Your task to perform on an android device: remove spam from my inbox in the gmail app Image 0: 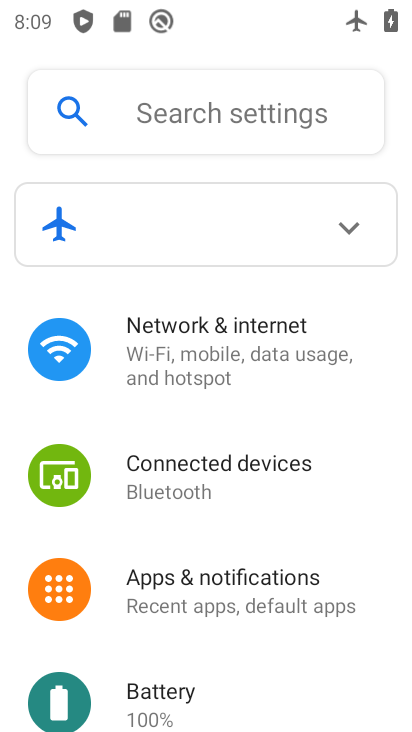
Step 0: press home button
Your task to perform on an android device: remove spam from my inbox in the gmail app Image 1: 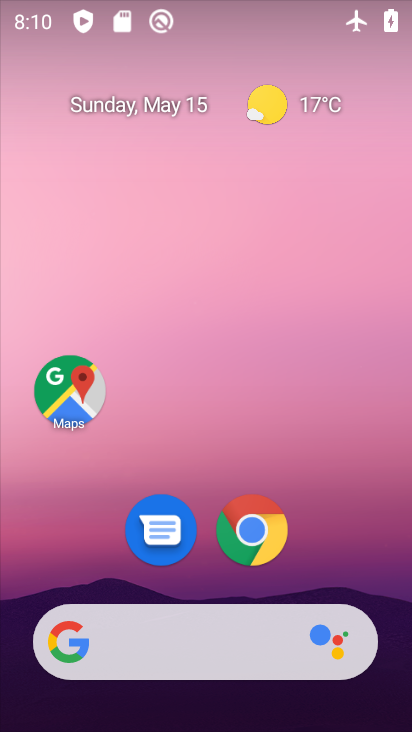
Step 1: drag from (206, 714) to (190, 206)
Your task to perform on an android device: remove spam from my inbox in the gmail app Image 2: 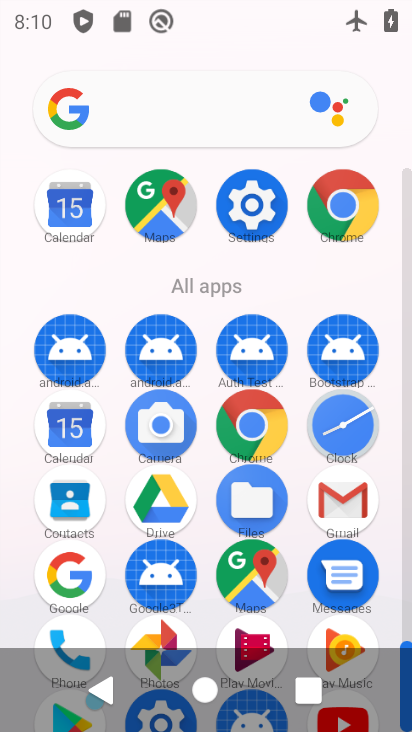
Step 2: click (362, 485)
Your task to perform on an android device: remove spam from my inbox in the gmail app Image 3: 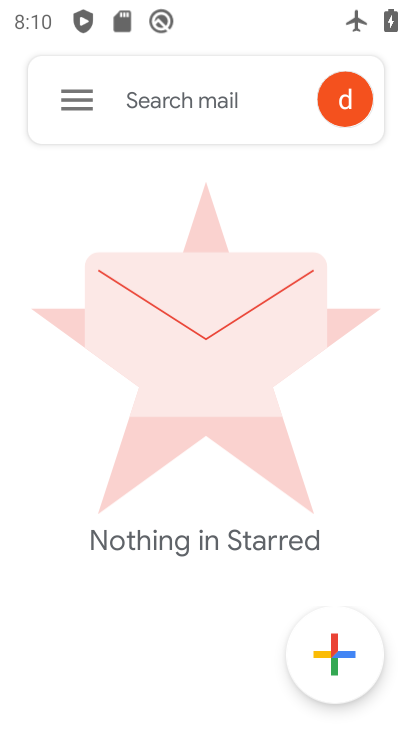
Step 3: click (64, 104)
Your task to perform on an android device: remove spam from my inbox in the gmail app Image 4: 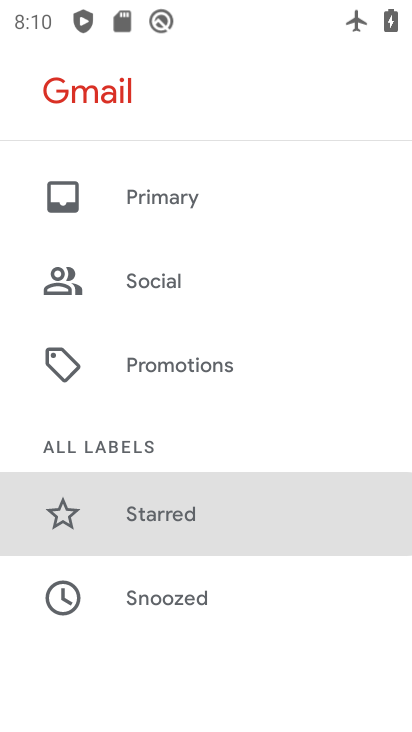
Step 4: drag from (227, 192) to (206, 691)
Your task to perform on an android device: remove spam from my inbox in the gmail app Image 5: 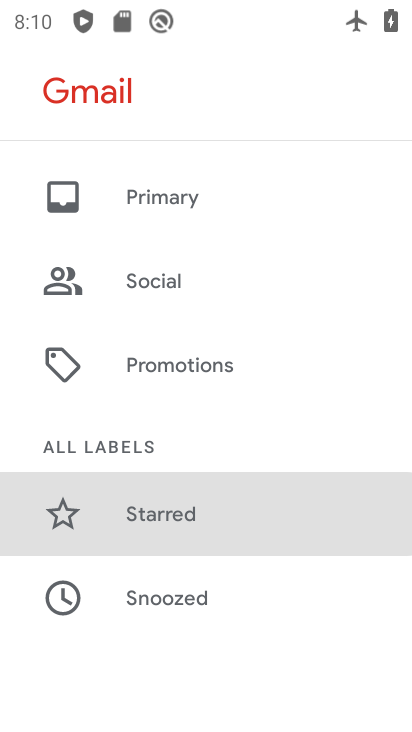
Step 5: click (173, 190)
Your task to perform on an android device: remove spam from my inbox in the gmail app Image 6: 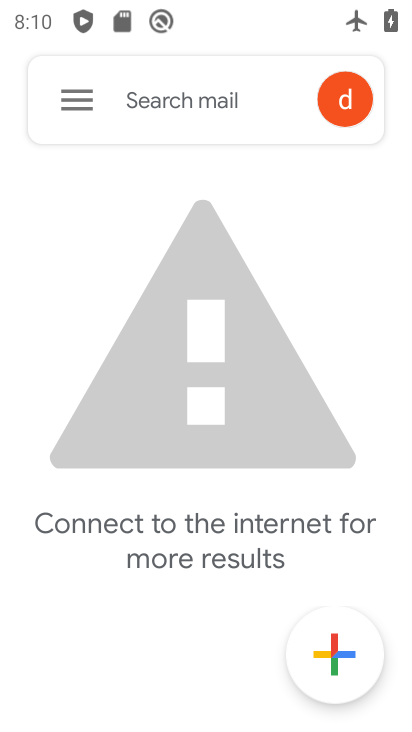
Step 6: task complete